Your task to perform on an android device: Is it going to rain this weekend? Image 0: 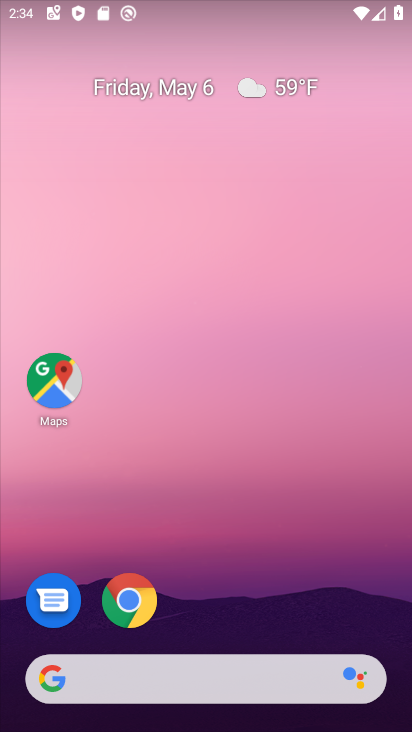
Step 0: drag from (196, 600) to (253, 85)
Your task to perform on an android device: Is it going to rain this weekend? Image 1: 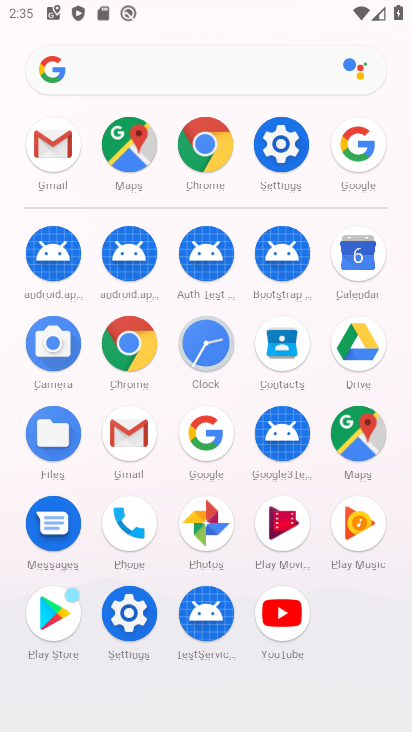
Step 1: click (208, 431)
Your task to perform on an android device: Is it going to rain this weekend? Image 2: 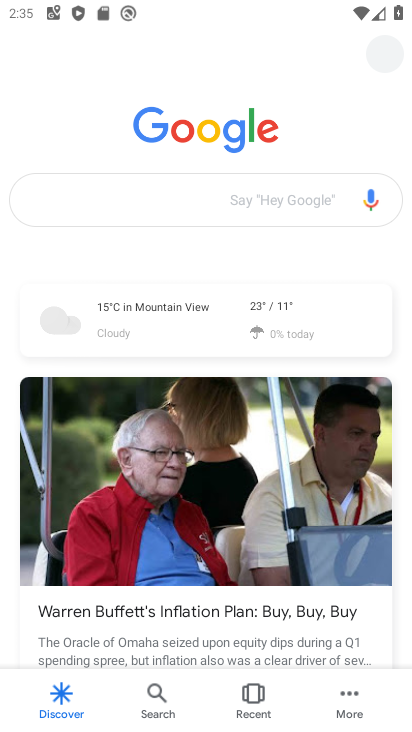
Step 2: click (204, 197)
Your task to perform on an android device: Is it going to rain this weekend? Image 3: 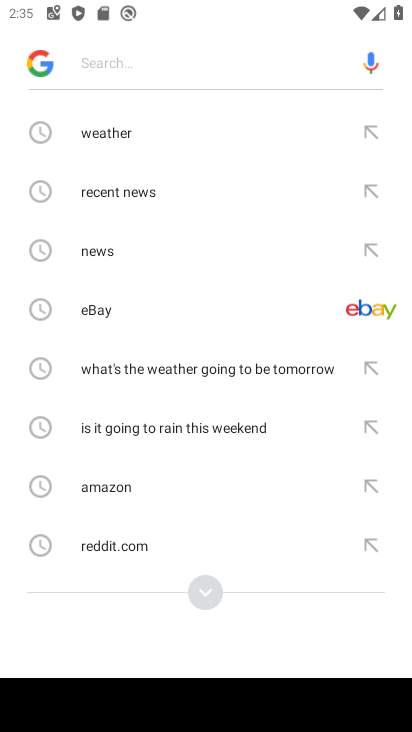
Step 3: type "is it going to rain this weekend"
Your task to perform on an android device: Is it going to rain this weekend? Image 4: 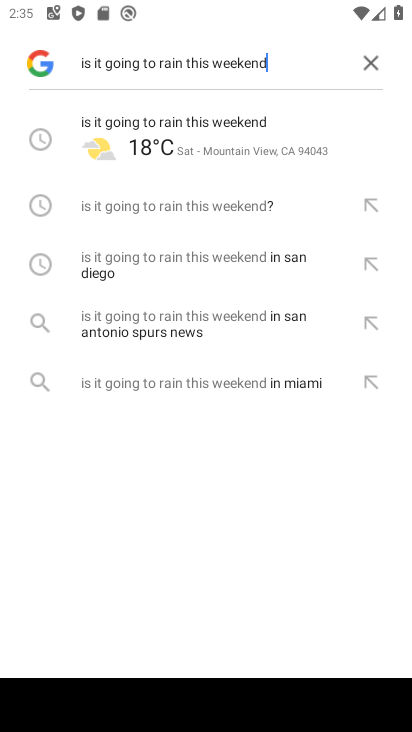
Step 4: click (179, 131)
Your task to perform on an android device: Is it going to rain this weekend? Image 5: 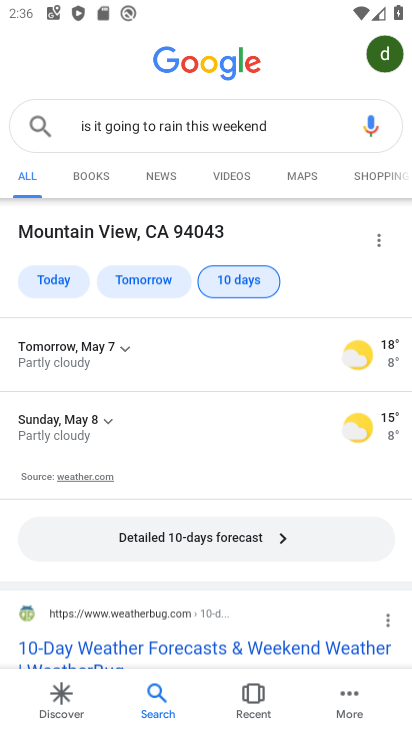
Step 5: task complete